Your task to perform on an android device: When is my next meeting? Image 0: 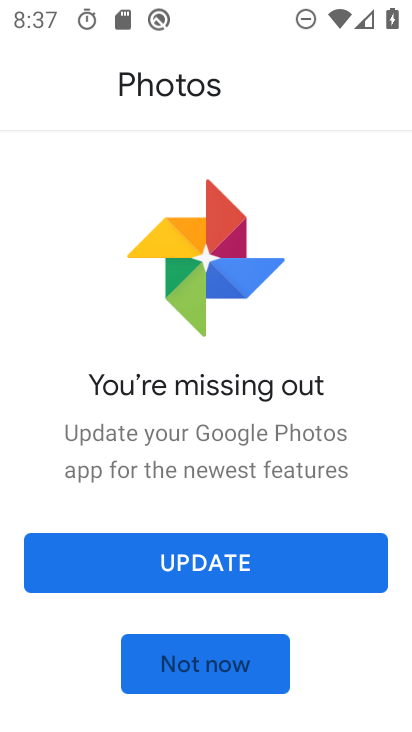
Step 0: press home button
Your task to perform on an android device: When is my next meeting? Image 1: 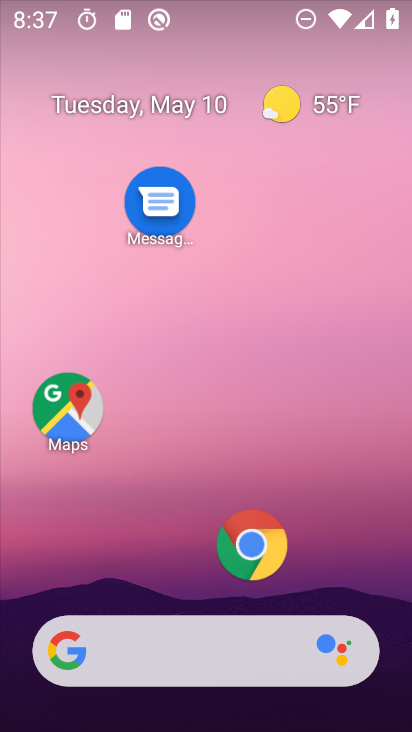
Step 1: drag from (144, 583) to (144, 172)
Your task to perform on an android device: When is my next meeting? Image 2: 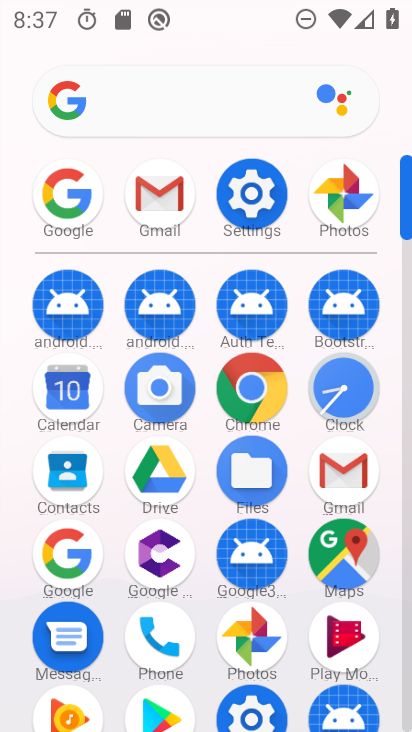
Step 2: click (86, 396)
Your task to perform on an android device: When is my next meeting? Image 3: 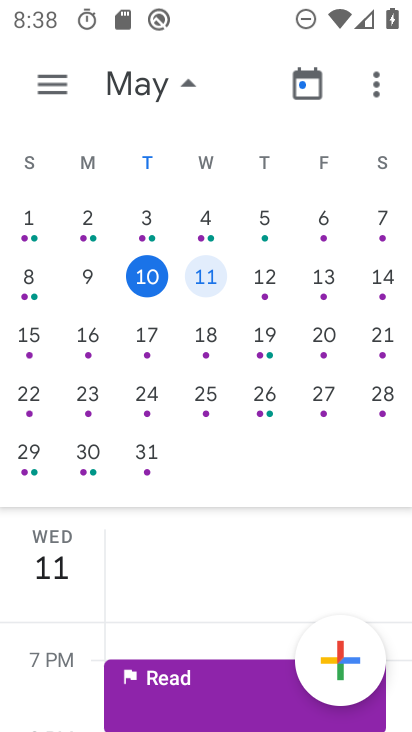
Step 3: drag from (225, 575) to (268, 243)
Your task to perform on an android device: When is my next meeting? Image 4: 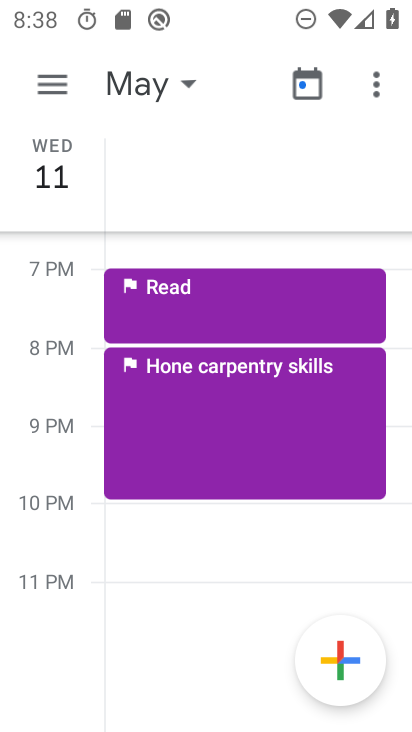
Step 4: drag from (207, 586) to (326, 337)
Your task to perform on an android device: When is my next meeting? Image 5: 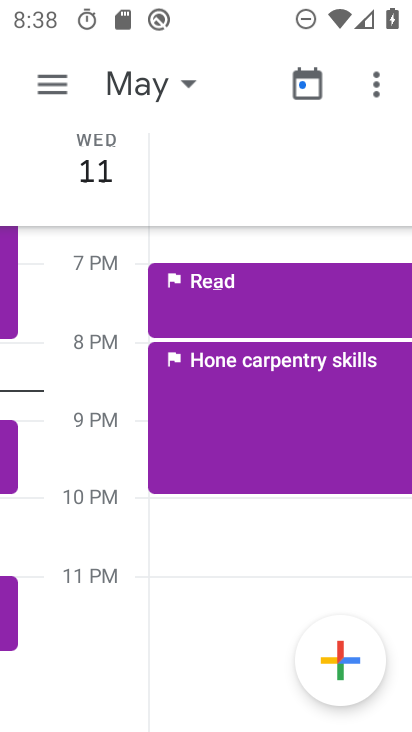
Step 5: drag from (258, 538) to (269, 291)
Your task to perform on an android device: When is my next meeting? Image 6: 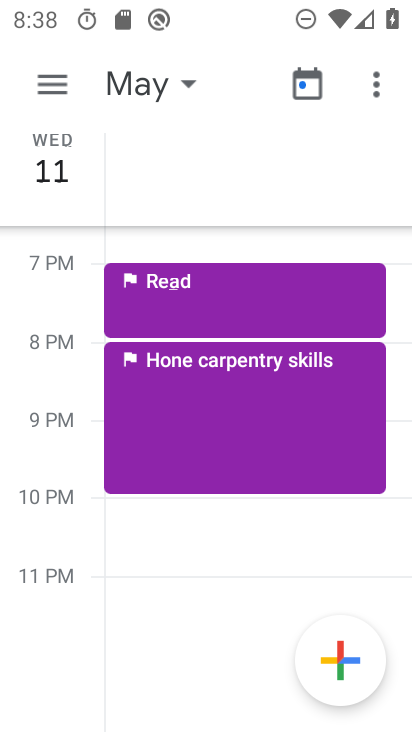
Step 6: drag from (216, 653) to (226, 328)
Your task to perform on an android device: When is my next meeting? Image 7: 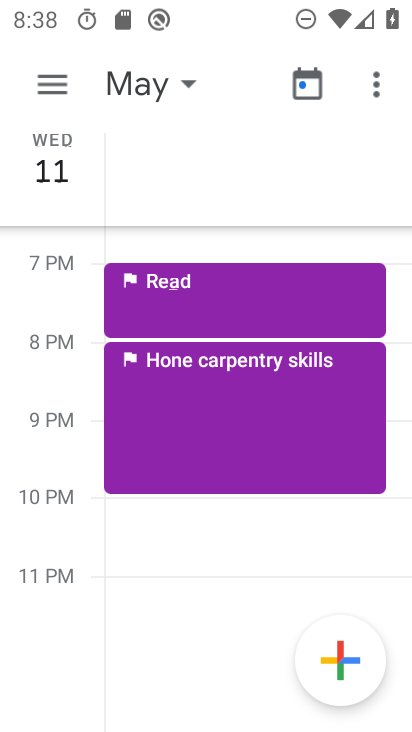
Step 7: drag from (167, 591) to (163, 205)
Your task to perform on an android device: When is my next meeting? Image 8: 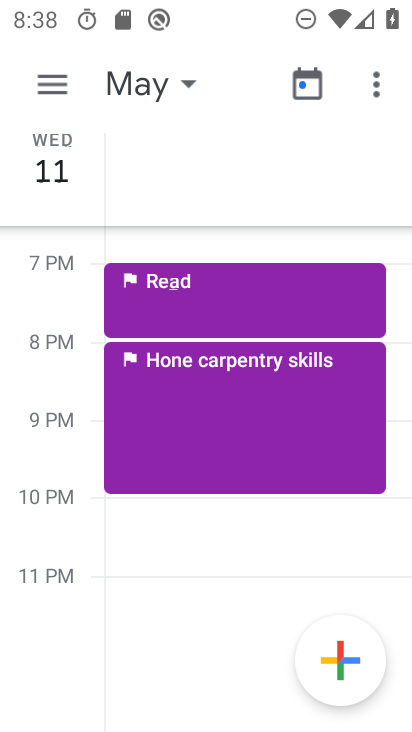
Step 8: drag from (163, 611) to (229, 366)
Your task to perform on an android device: When is my next meeting? Image 9: 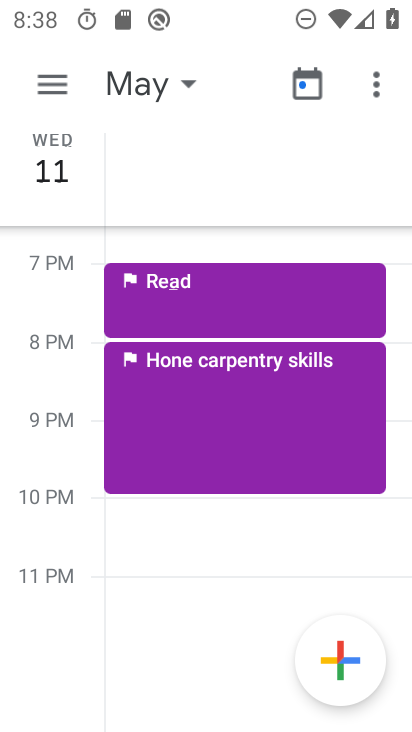
Step 9: drag from (235, 601) to (235, 178)
Your task to perform on an android device: When is my next meeting? Image 10: 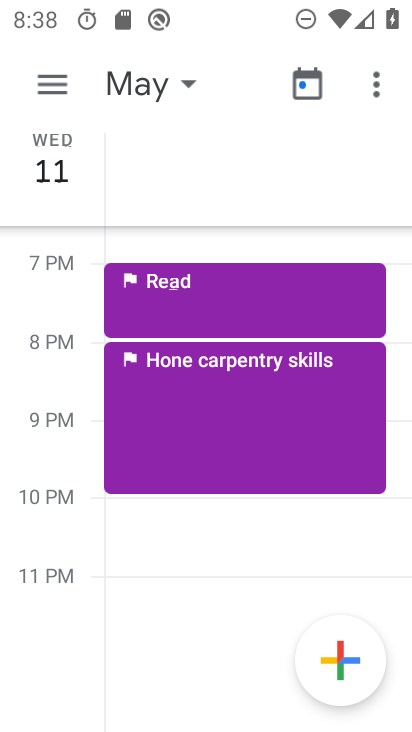
Step 10: click (61, 71)
Your task to perform on an android device: When is my next meeting? Image 11: 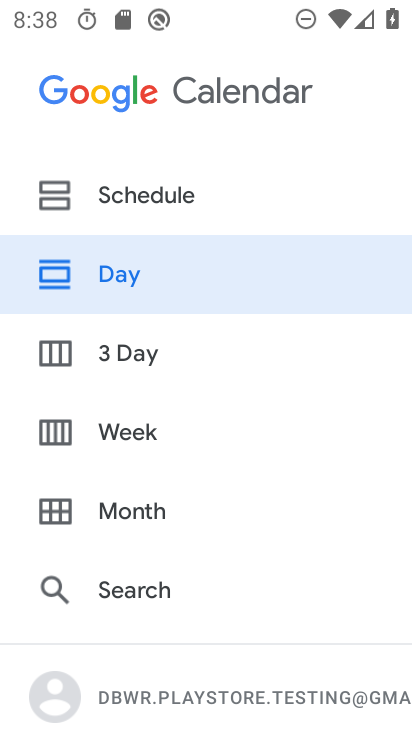
Step 11: drag from (160, 510) to (168, 290)
Your task to perform on an android device: When is my next meeting? Image 12: 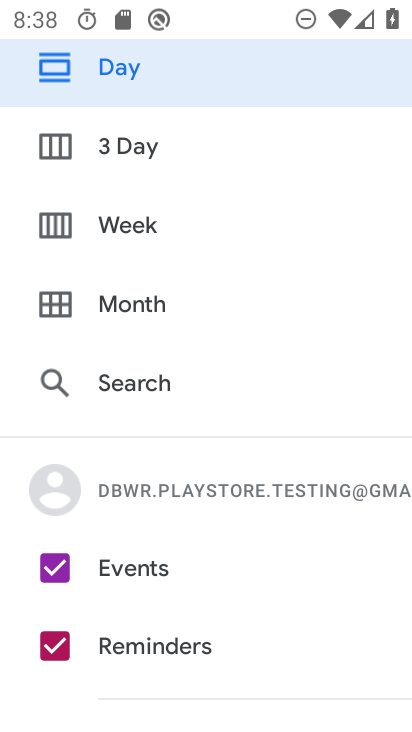
Step 12: drag from (168, 290) to (145, 478)
Your task to perform on an android device: When is my next meeting? Image 13: 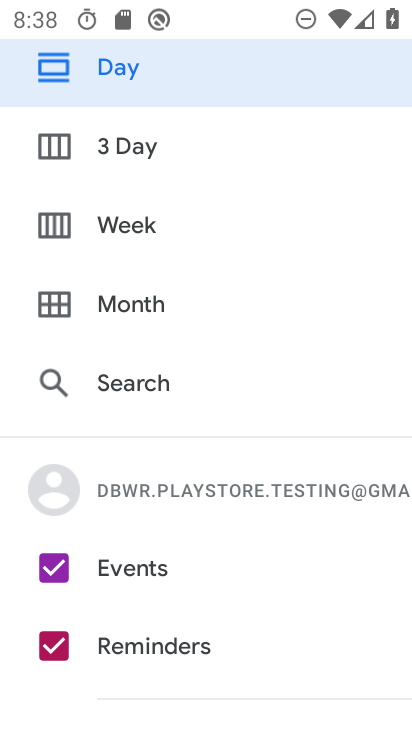
Step 13: drag from (211, 201) to (221, 531)
Your task to perform on an android device: When is my next meeting? Image 14: 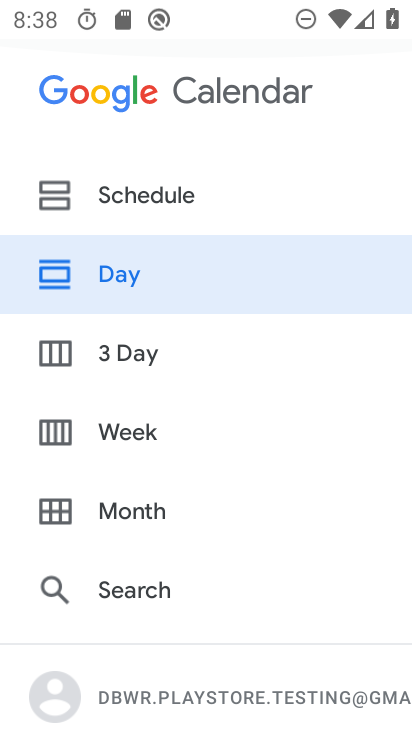
Step 14: click (198, 190)
Your task to perform on an android device: When is my next meeting? Image 15: 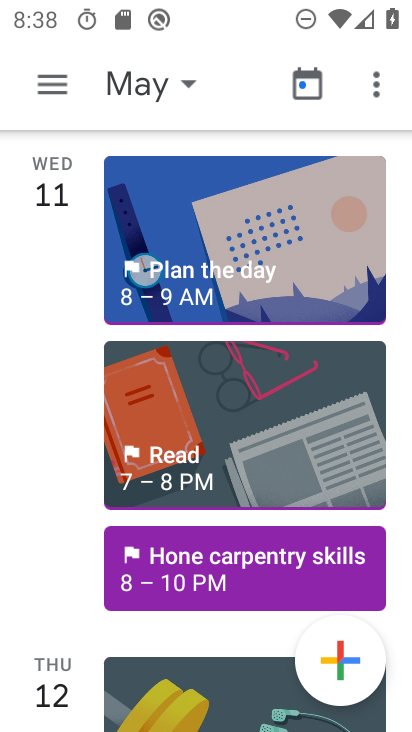
Step 15: task complete